Your task to perform on an android device: toggle show notifications on the lock screen Image 0: 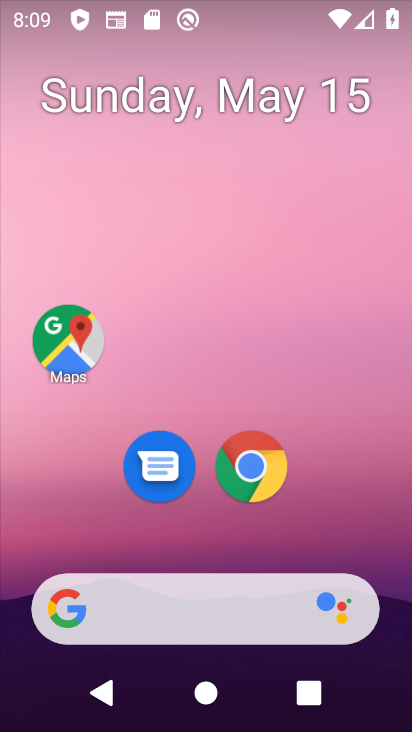
Step 0: drag from (235, 562) to (400, 663)
Your task to perform on an android device: toggle show notifications on the lock screen Image 1: 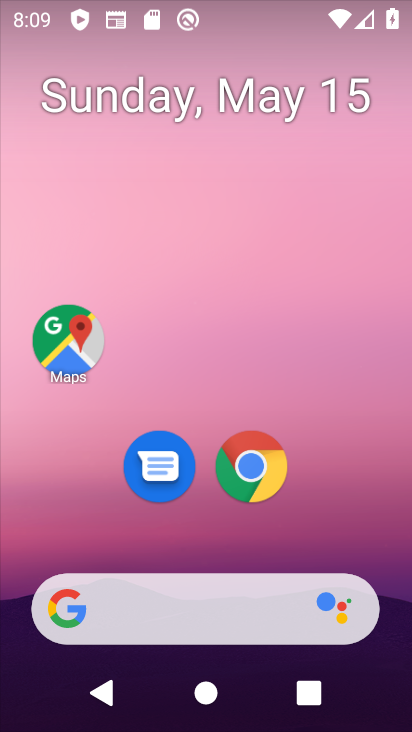
Step 1: drag from (180, 559) to (297, 5)
Your task to perform on an android device: toggle show notifications on the lock screen Image 2: 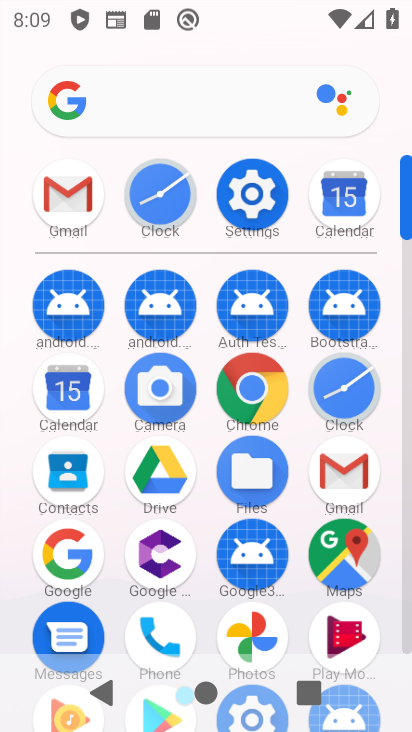
Step 2: click (254, 201)
Your task to perform on an android device: toggle show notifications on the lock screen Image 3: 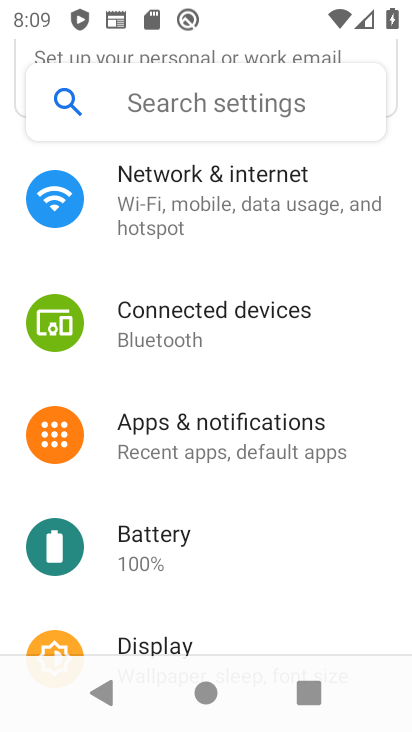
Step 3: drag from (228, 572) to (217, 470)
Your task to perform on an android device: toggle show notifications on the lock screen Image 4: 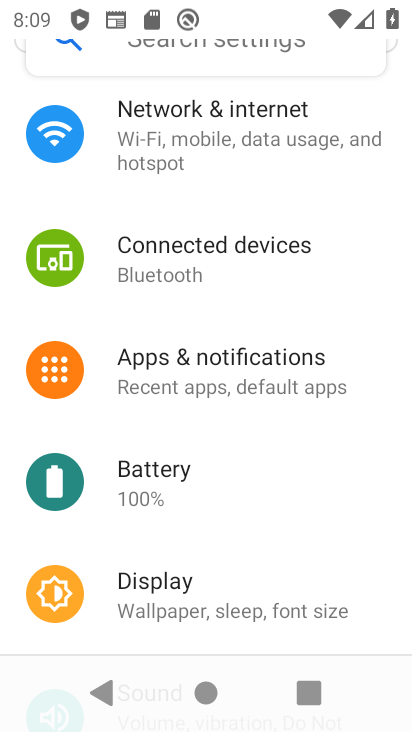
Step 4: click (199, 387)
Your task to perform on an android device: toggle show notifications on the lock screen Image 5: 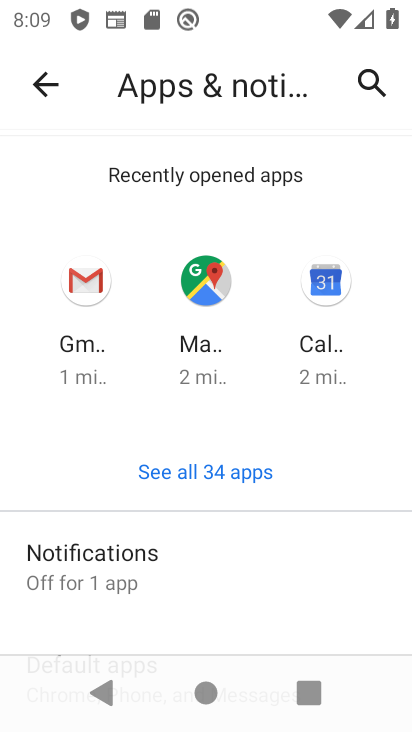
Step 5: click (167, 577)
Your task to perform on an android device: toggle show notifications on the lock screen Image 6: 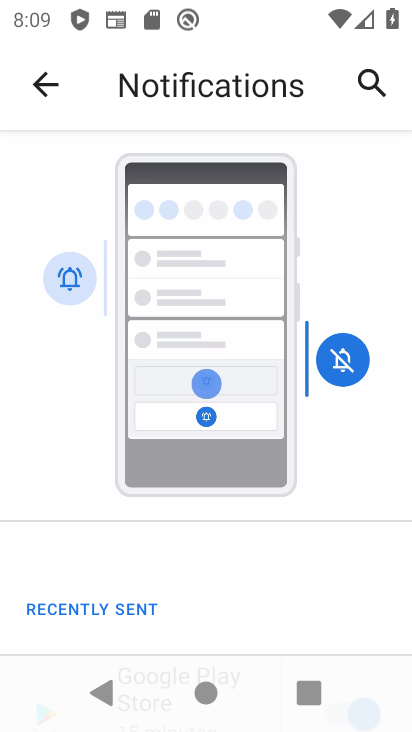
Step 6: drag from (220, 538) to (168, 68)
Your task to perform on an android device: toggle show notifications on the lock screen Image 7: 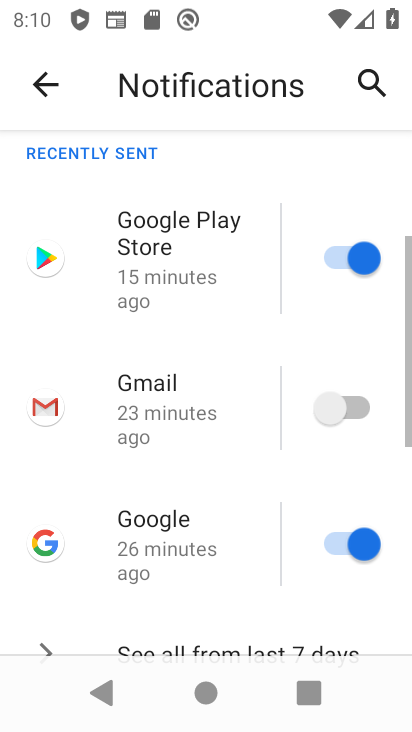
Step 7: drag from (252, 574) to (239, 207)
Your task to perform on an android device: toggle show notifications on the lock screen Image 8: 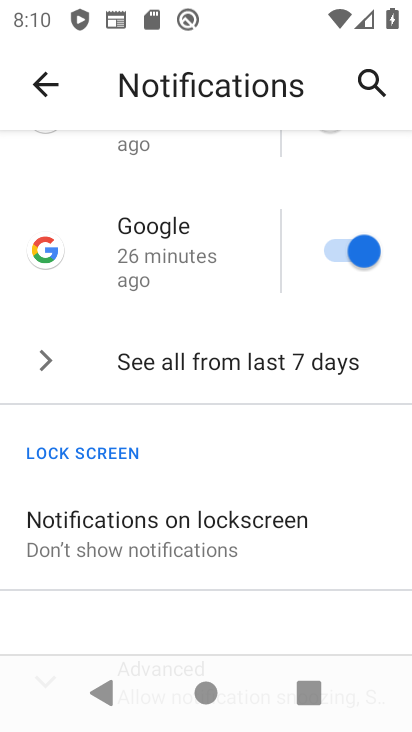
Step 8: click (235, 568)
Your task to perform on an android device: toggle show notifications on the lock screen Image 9: 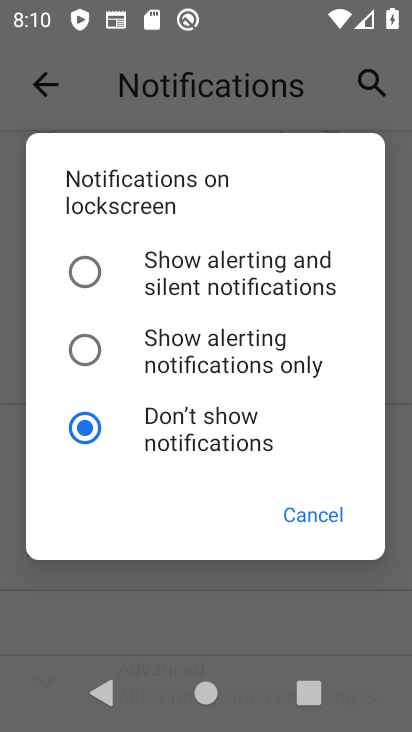
Step 9: click (136, 282)
Your task to perform on an android device: toggle show notifications on the lock screen Image 10: 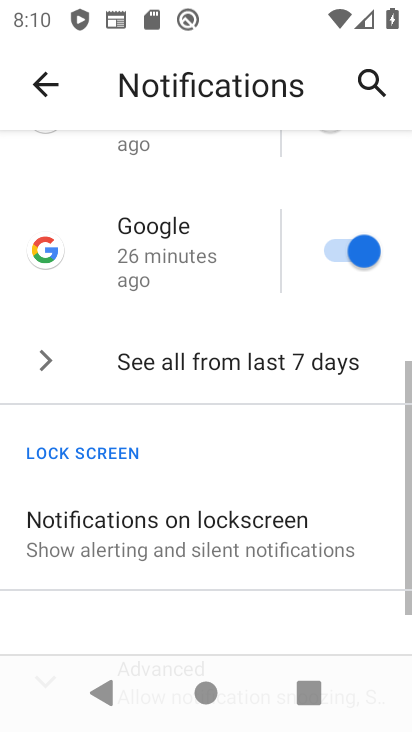
Step 10: task complete